Your task to perform on an android device: change your default location settings in chrome Image 0: 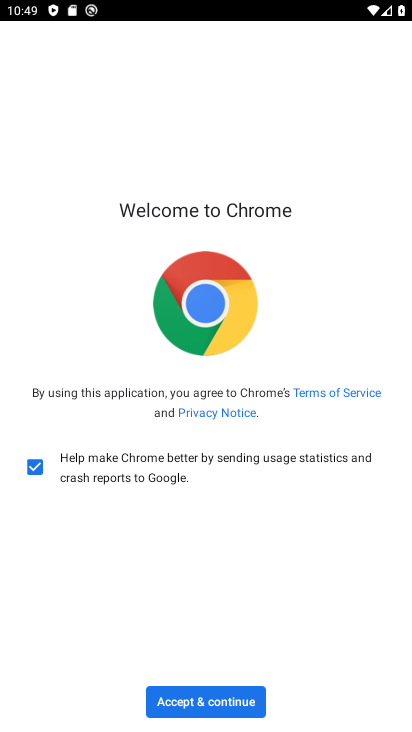
Step 0: click (188, 696)
Your task to perform on an android device: change your default location settings in chrome Image 1: 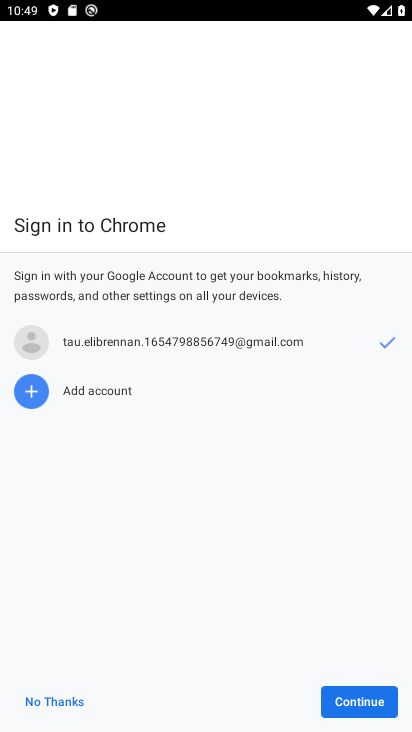
Step 1: click (361, 703)
Your task to perform on an android device: change your default location settings in chrome Image 2: 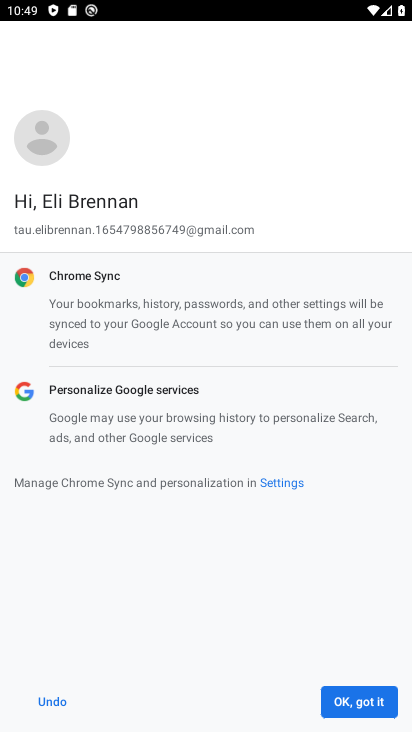
Step 2: click (359, 701)
Your task to perform on an android device: change your default location settings in chrome Image 3: 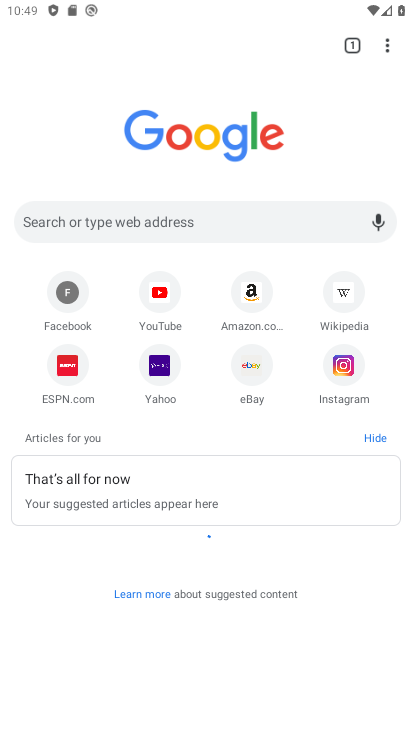
Step 3: click (388, 52)
Your task to perform on an android device: change your default location settings in chrome Image 4: 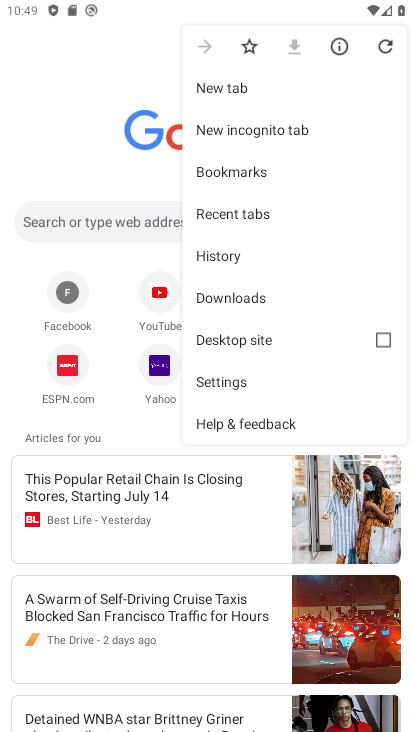
Step 4: click (236, 380)
Your task to perform on an android device: change your default location settings in chrome Image 5: 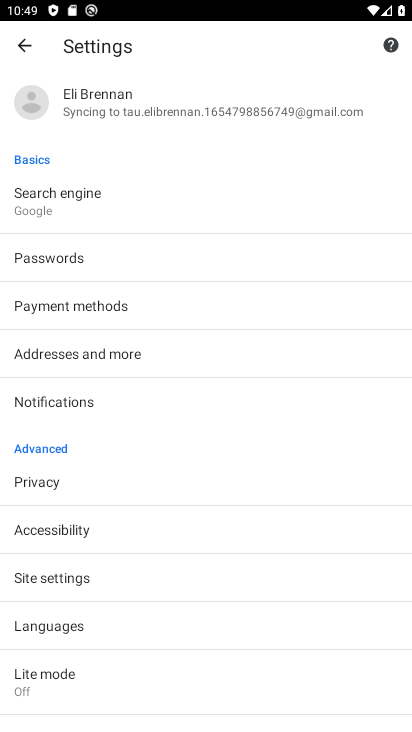
Step 5: click (66, 574)
Your task to perform on an android device: change your default location settings in chrome Image 6: 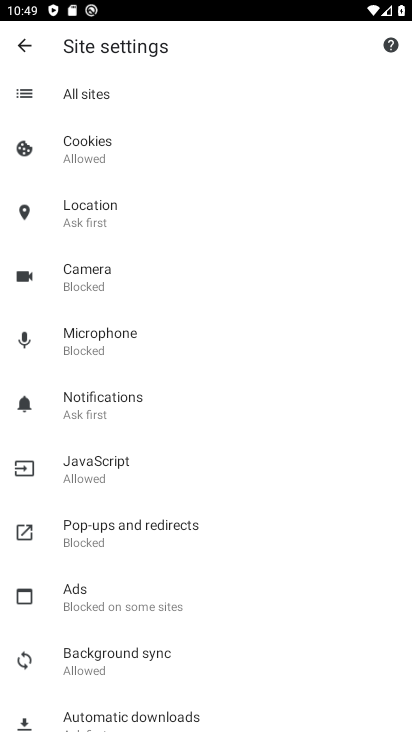
Step 6: click (80, 202)
Your task to perform on an android device: change your default location settings in chrome Image 7: 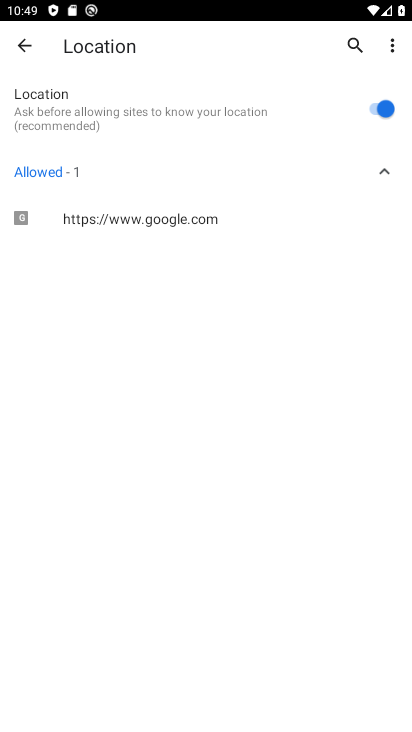
Step 7: click (370, 107)
Your task to perform on an android device: change your default location settings in chrome Image 8: 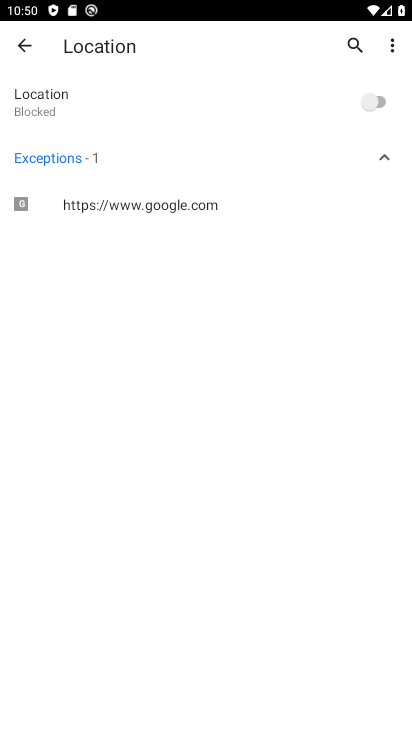
Step 8: task complete